Your task to perform on an android device: change notifications settings Image 0: 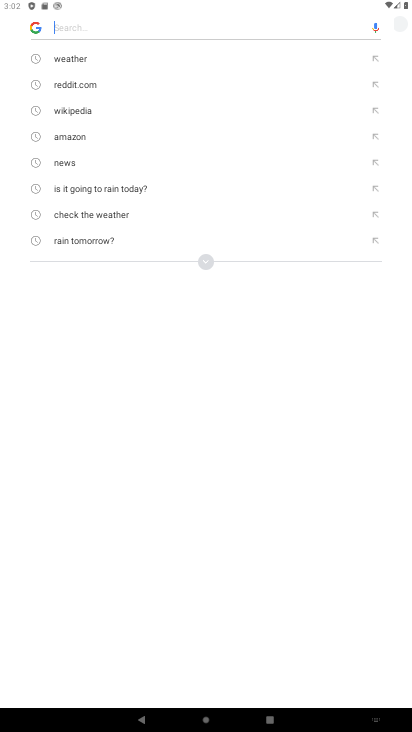
Step 0: press home button
Your task to perform on an android device: change notifications settings Image 1: 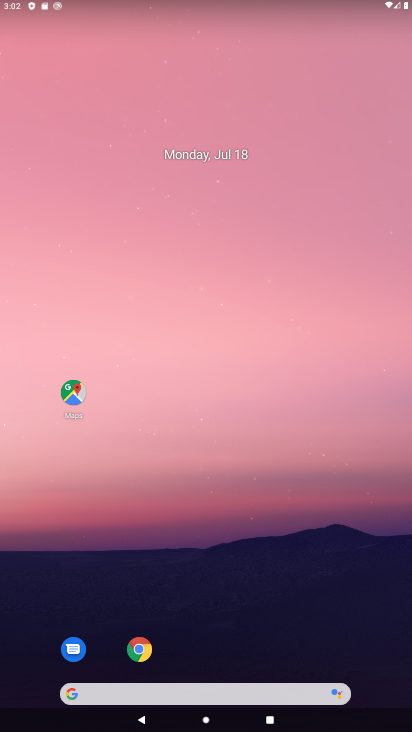
Step 1: drag from (330, 628) to (302, 50)
Your task to perform on an android device: change notifications settings Image 2: 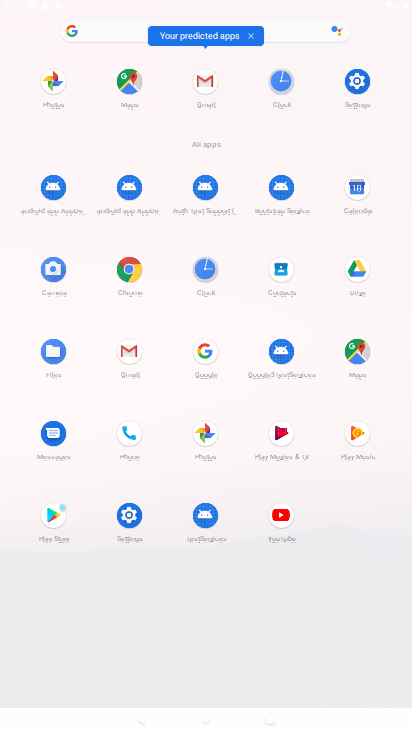
Step 2: click (358, 78)
Your task to perform on an android device: change notifications settings Image 3: 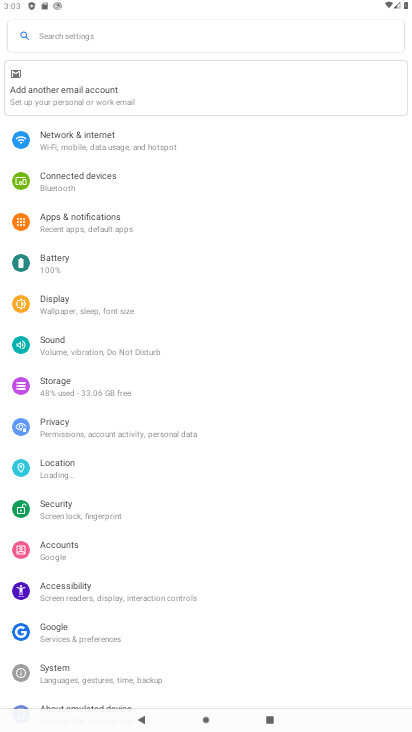
Step 3: click (163, 217)
Your task to perform on an android device: change notifications settings Image 4: 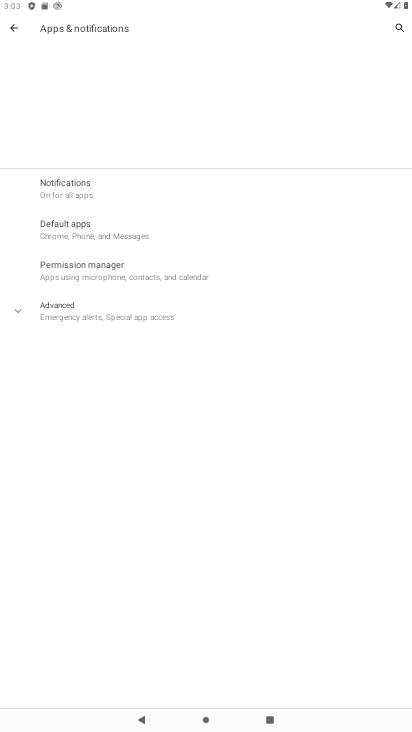
Step 4: click (133, 188)
Your task to perform on an android device: change notifications settings Image 5: 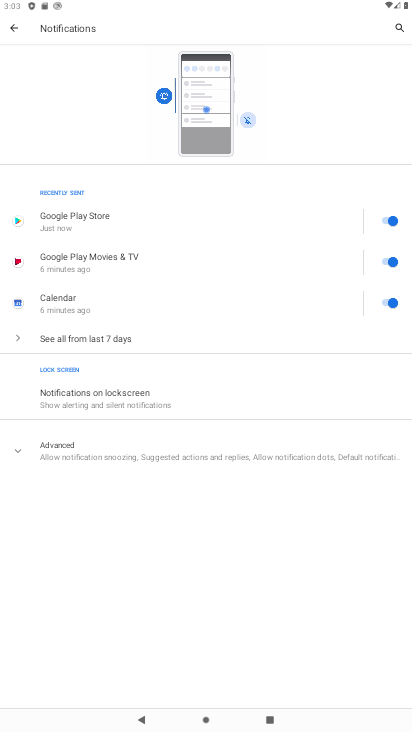
Step 5: click (136, 340)
Your task to perform on an android device: change notifications settings Image 6: 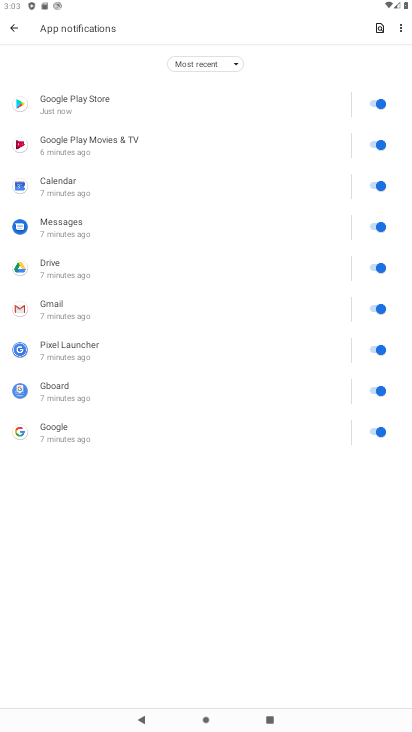
Step 6: click (376, 112)
Your task to perform on an android device: change notifications settings Image 7: 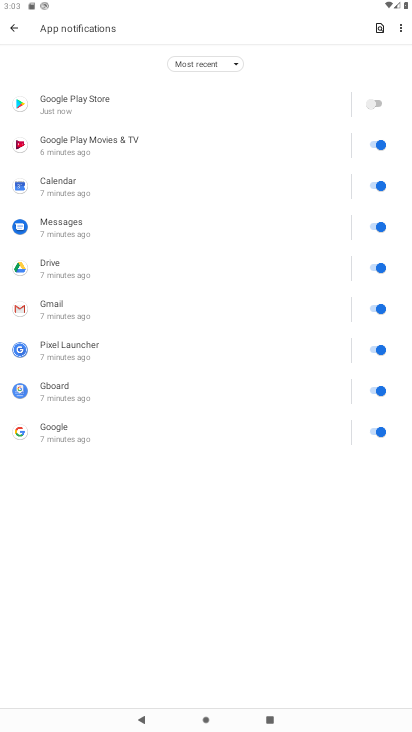
Step 7: click (376, 147)
Your task to perform on an android device: change notifications settings Image 8: 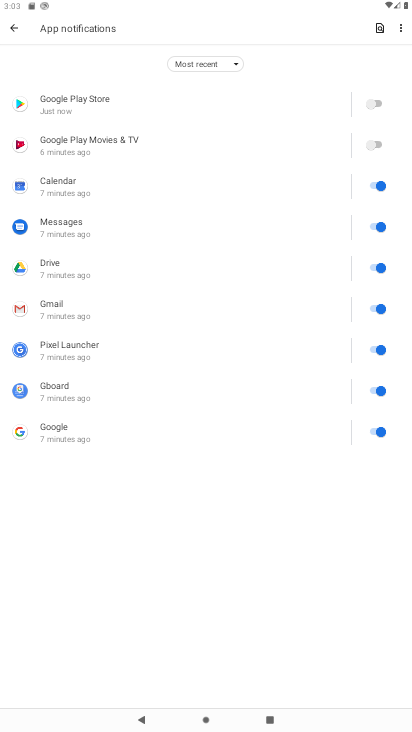
Step 8: click (372, 187)
Your task to perform on an android device: change notifications settings Image 9: 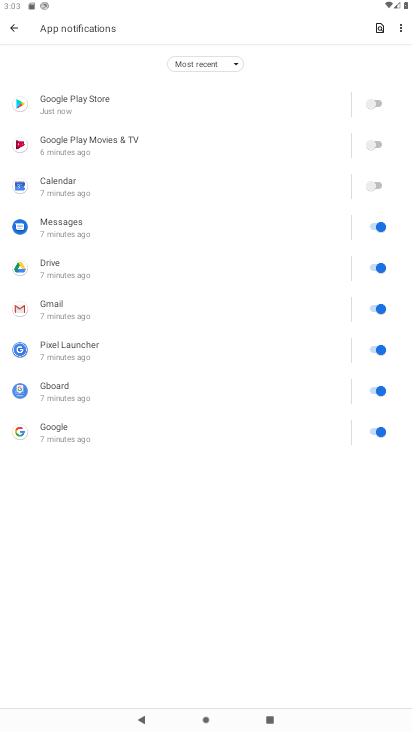
Step 9: click (371, 223)
Your task to perform on an android device: change notifications settings Image 10: 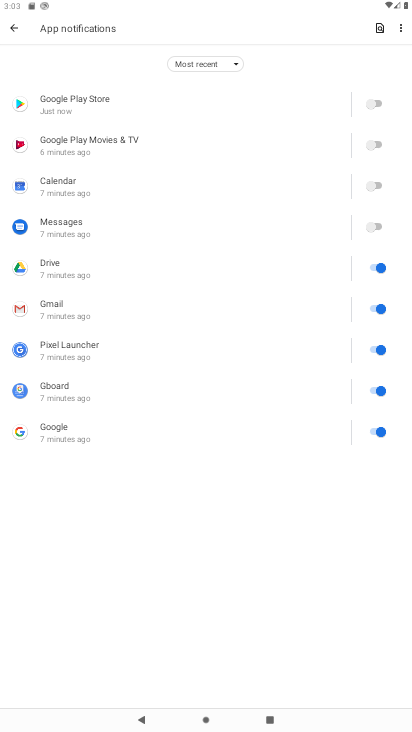
Step 10: click (387, 274)
Your task to perform on an android device: change notifications settings Image 11: 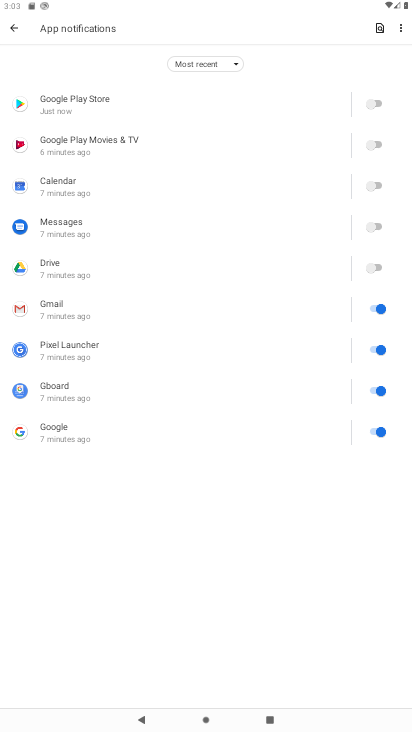
Step 11: click (375, 309)
Your task to perform on an android device: change notifications settings Image 12: 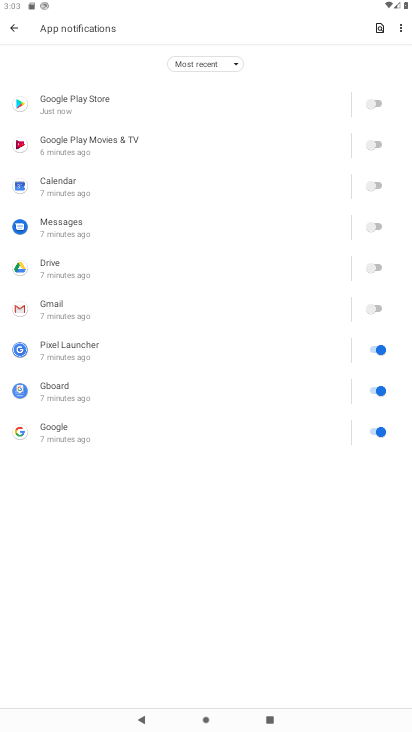
Step 12: click (380, 348)
Your task to perform on an android device: change notifications settings Image 13: 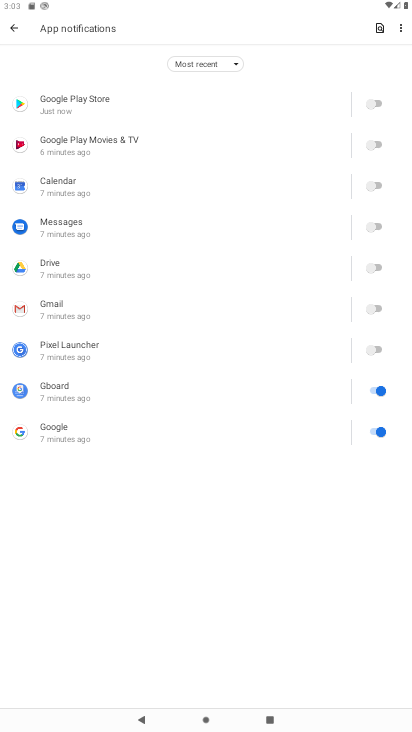
Step 13: click (379, 393)
Your task to perform on an android device: change notifications settings Image 14: 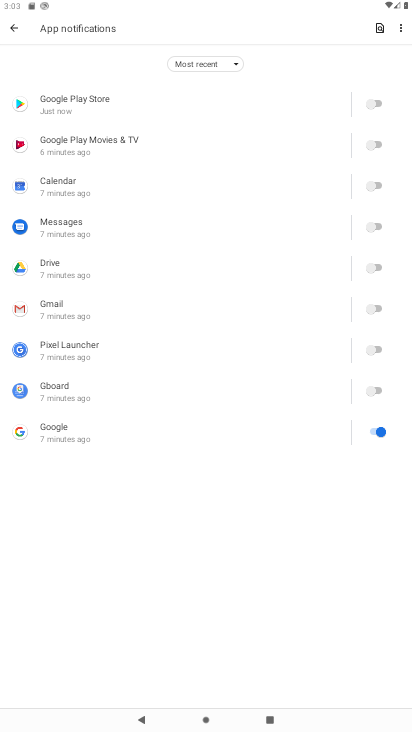
Step 14: click (377, 431)
Your task to perform on an android device: change notifications settings Image 15: 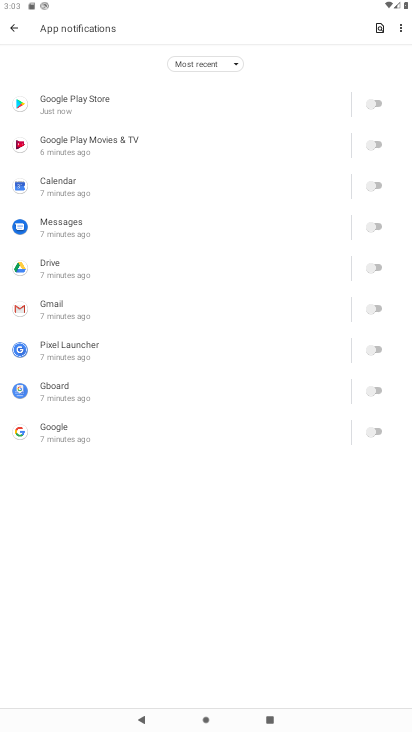
Step 15: click (6, 20)
Your task to perform on an android device: change notifications settings Image 16: 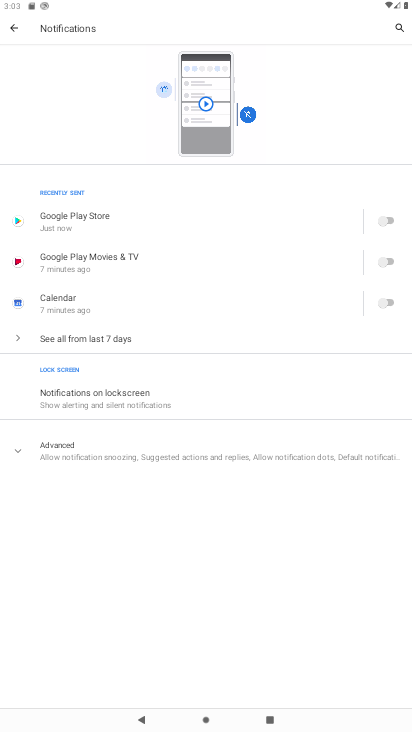
Step 16: click (114, 401)
Your task to perform on an android device: change notifications settings Image 17: 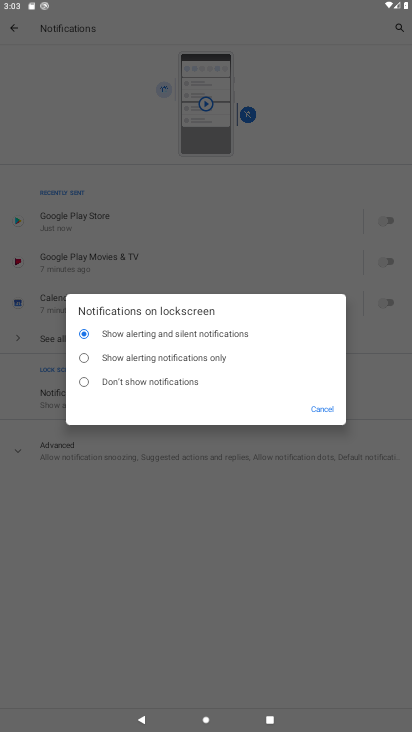
Step 17: click (84, 353)
Your task to perform on an android device: change notifications settings Image 18: 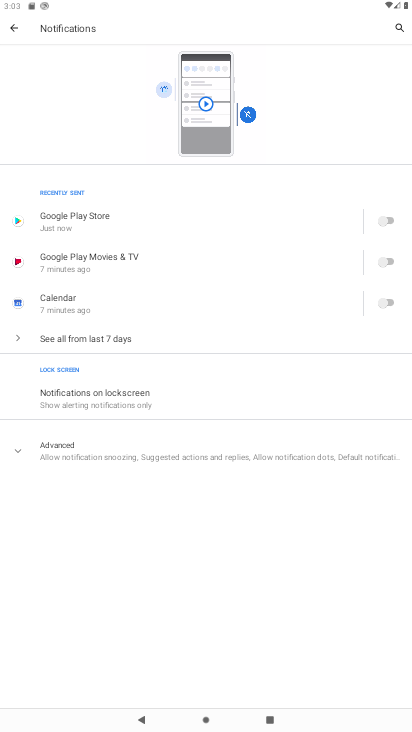
Step 18: click (94, 444)
Your task to perform on an android device: change notifications settings Image 19: 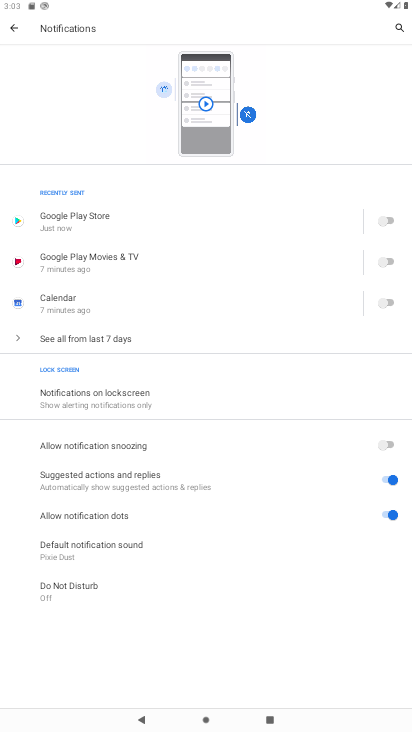
Step 19: click (398, 442)
Your task to perform on an android device: change notifications settings Image 20: 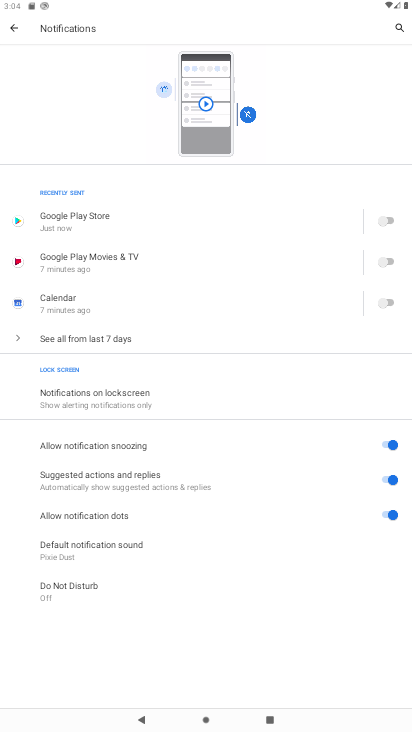
Step 20: click (390, 471)
Your task to perform on an android device: change notifications settings Image 21: 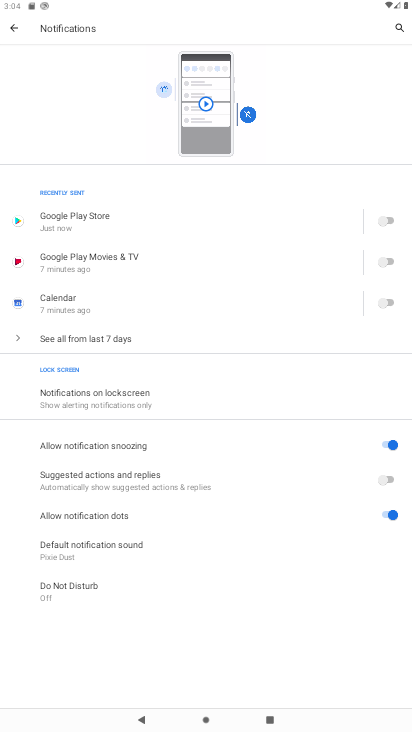
Step 21: click (390, 511)
Your task to perform on an android device: change notifications settings Image 22: 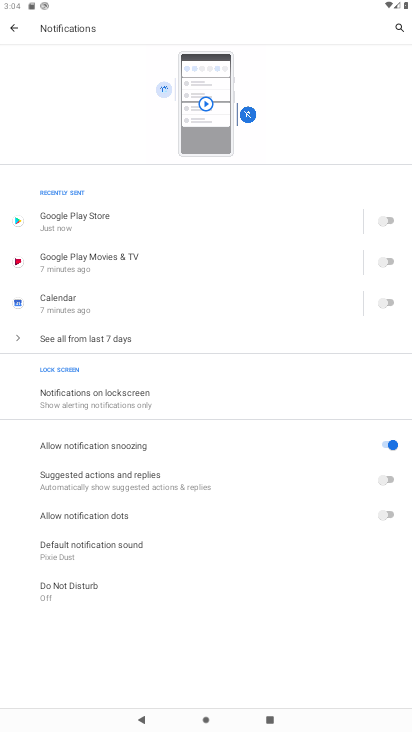
Step 22: task complete